Your task to perform on an android device: Go to ESPN.com Image 0: 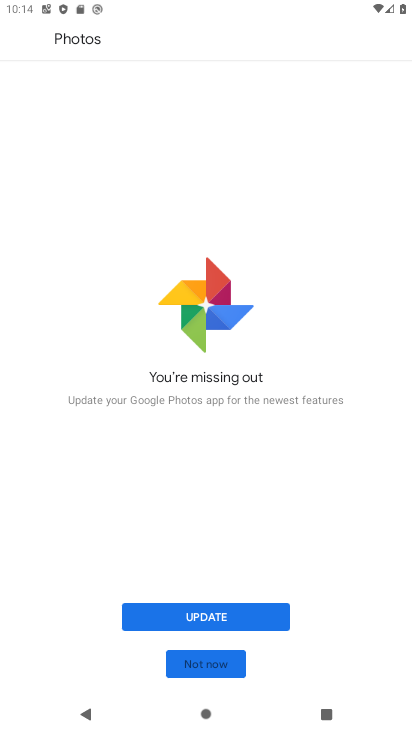
Step 0: press home button
Your task to perform on an android device: Go to ESPN.com Image 1: 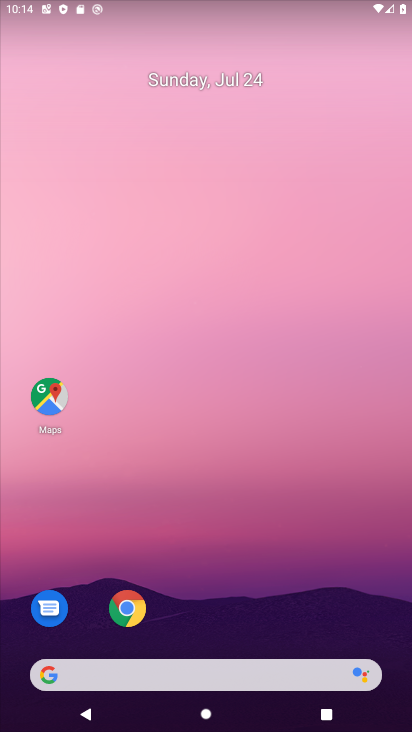
Step 1: click (131, 612)
Your task to perform on an android device: Go to ESPN.com Image 2: 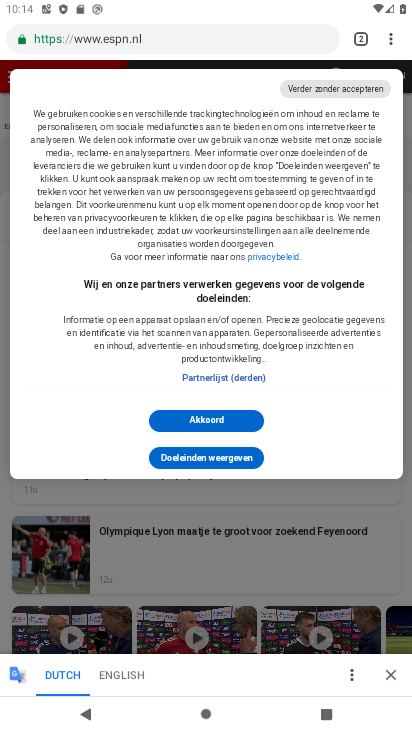
Step 2: task complete